Your task to perform on an android device: Search for macbook on bestbuy.com, select the first entry, add it to the cart, then select checkout. Image 0: 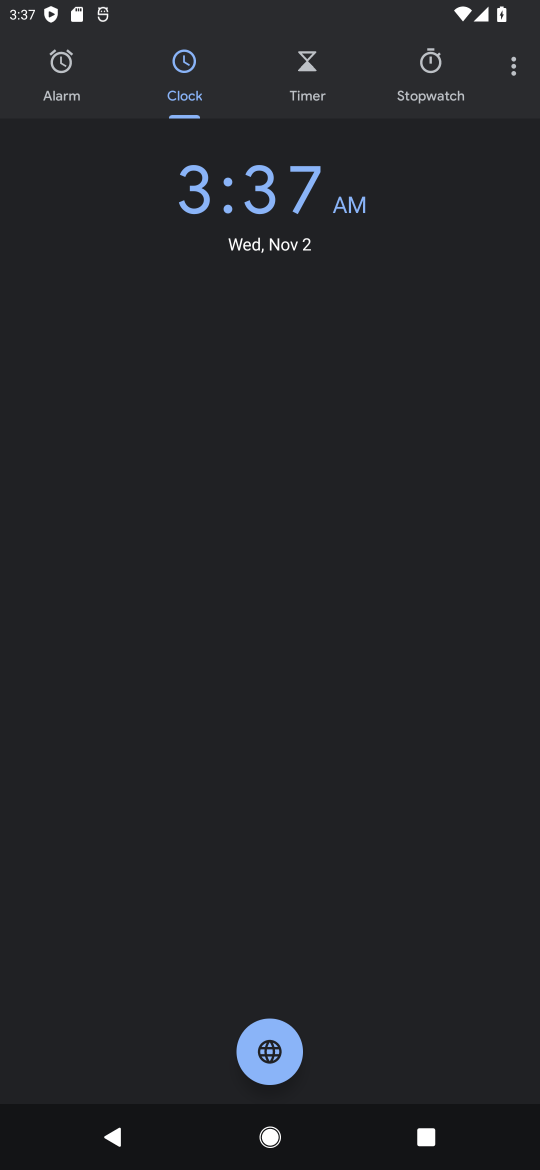
Step 0: press home button
Your task to perform on an android device: Search for macbook on bestbuy.com, select the first entry, add it to the cart, then select checkout. Image 1: 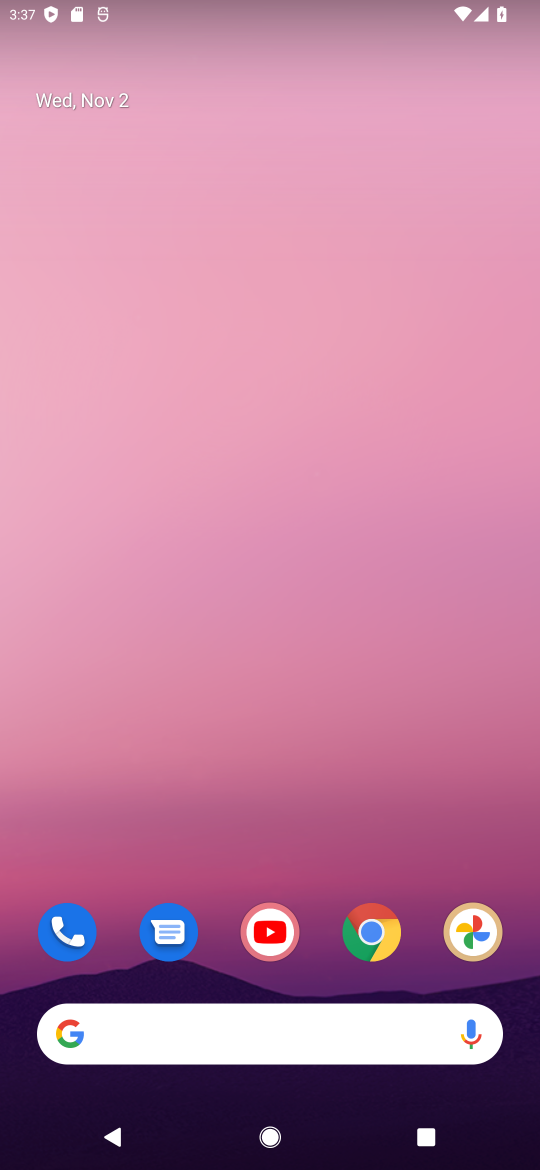
Step 1: click (359, 942)
Your task to perform on an android device: Search for macbook on bestbuy.com, select the first entry, add it to the cart, then select checkout. Image 2: 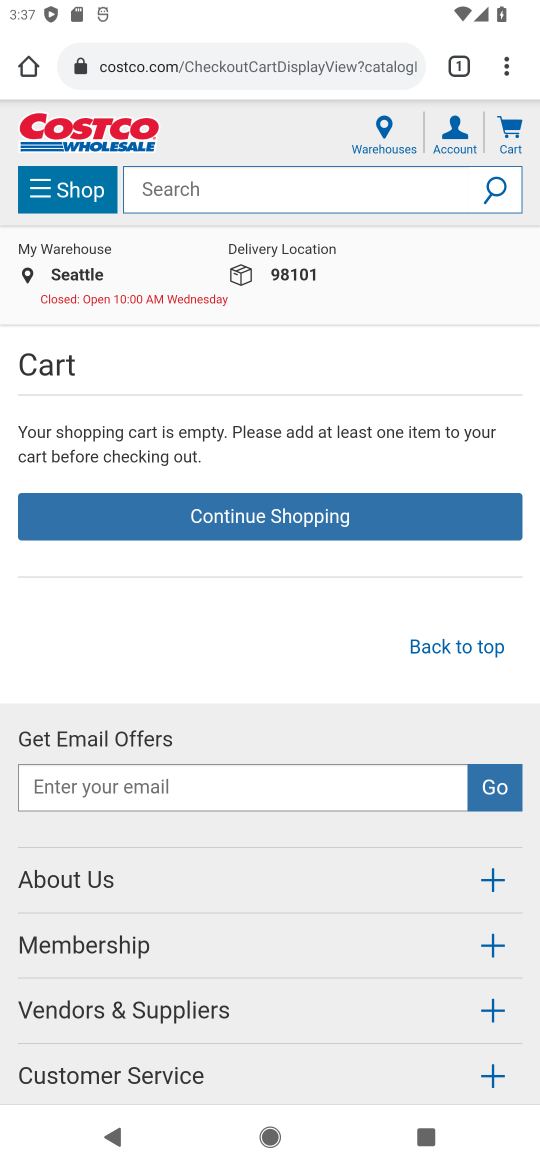
Step 2: click (176, 62)
Your task to perform on an android device: Search for macbook on bestbuy.com, select the first entry, add it to the cart, then select checkout. Image 3: 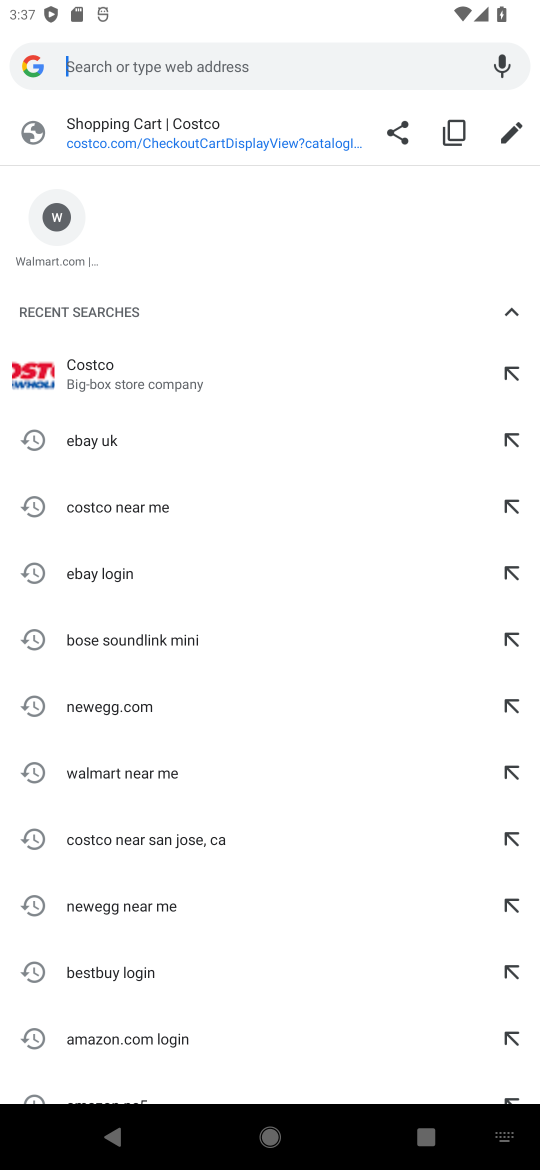
Step 3: click (131, 971)
Your task to perform on an android device: Search for macbook on bestbuy.com, select the first entry, add it to the cart, then select checkout. Image 4: 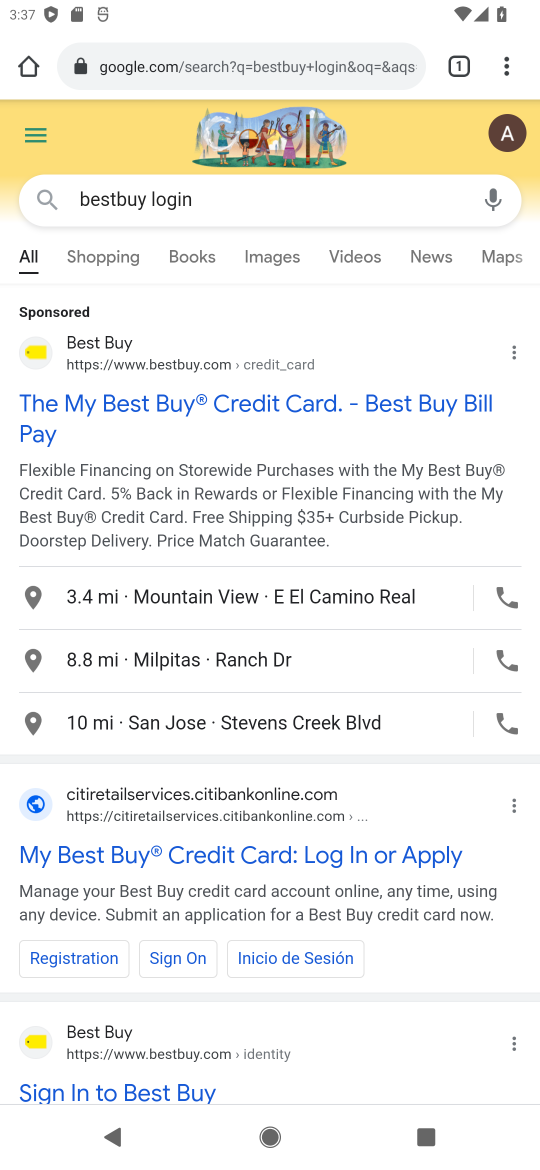
Step 4: click (125, 1041)
Your task to perform on an android device: Search for macbook on bestbuy.com, select the first entry, add it to the cart, then select checkout. Image 5: 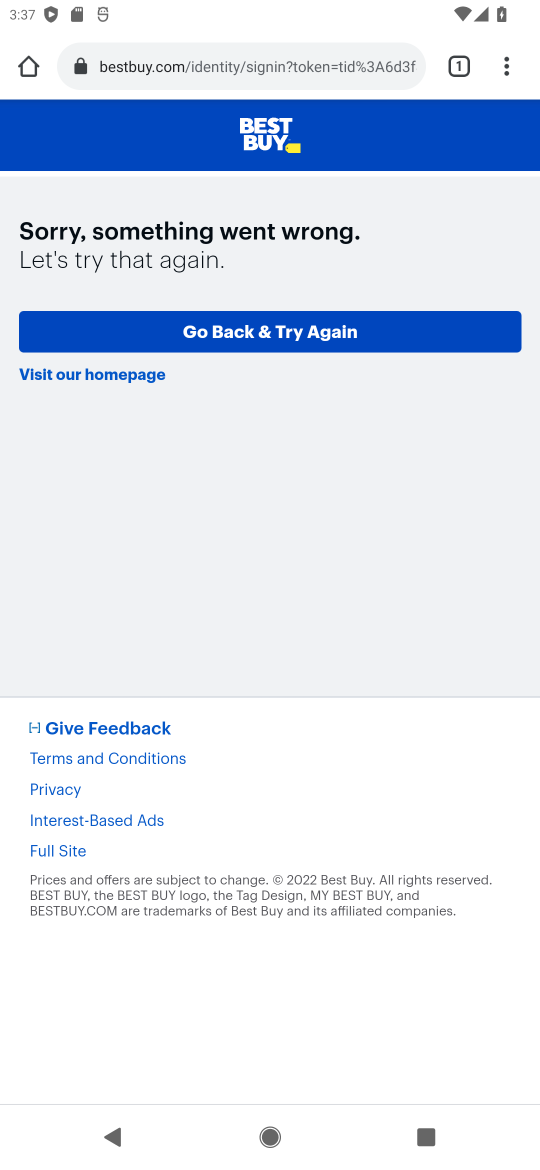
Step 5: press back button
Your task to perform on an android device: Search for macbook on bestbuy.com, select the first entry, add it to the cart, then select checkout. Image 6: 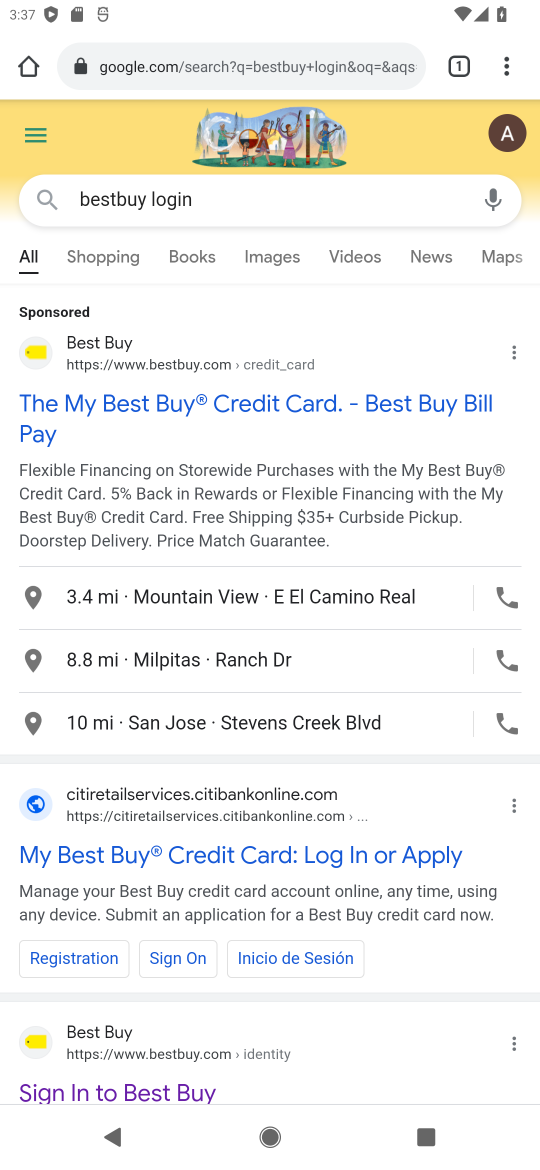
Step 6: click (82, 347)
Your task to perform on an android device: Search for macbook on bestbuy.com, select the first entry, add it to the cart, then select checkout. Image 7: 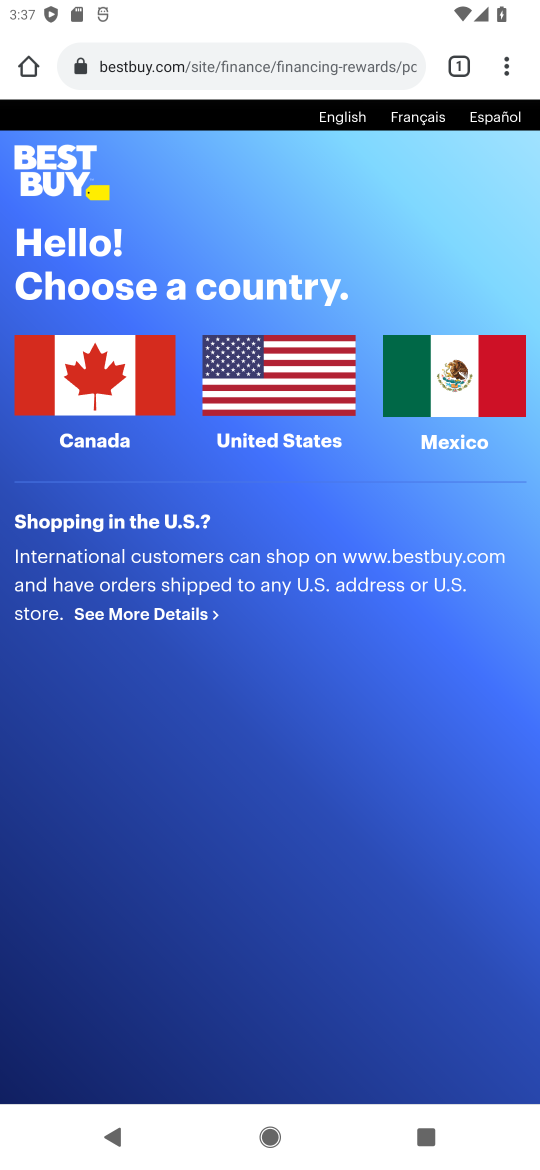
Step 7: click (278, 393)
Your task to perform on an android device: Search for macbook on bestbuy.com, select the first entry, add it to the cart, then select checkout. Image 8: 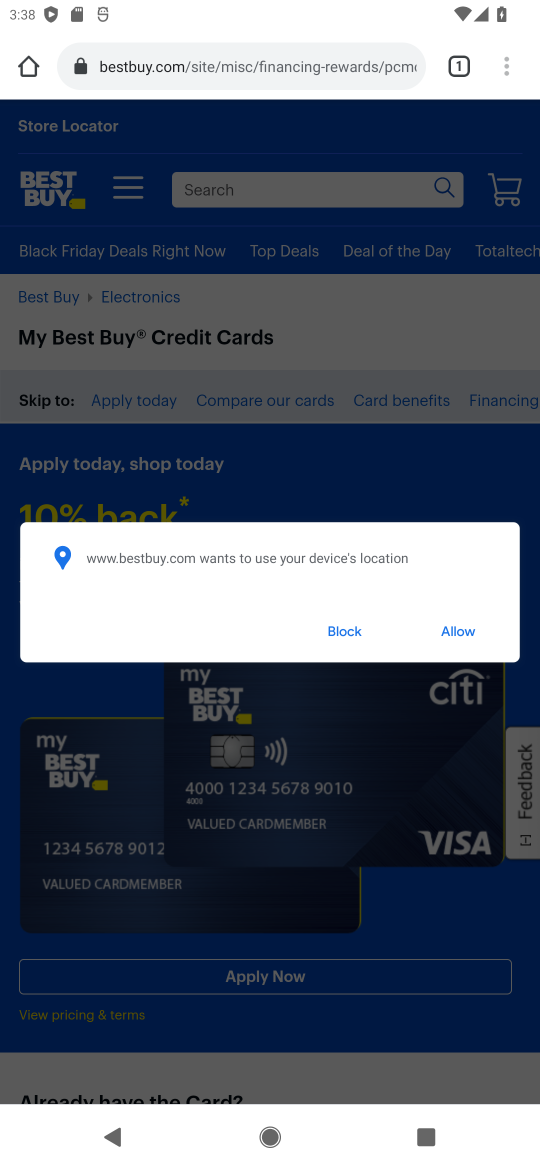
Step 8: click (339, 625)
Your task to perform on an android device: Search for macbook on bestbuy.com, select the first entry, add it to the cart, then select checkout. Image 9: 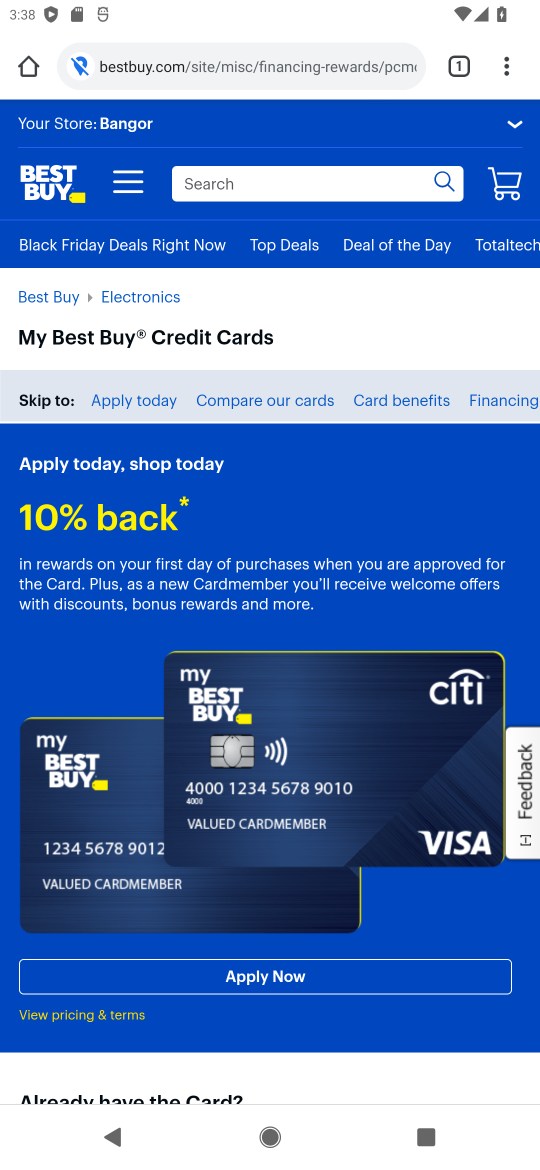
Step 9: click (306, 187)
Your task to perform on an android device: Search for macbook on bestbuy.com, select the first entry, add it to the cart, then select checkout. Image 10: 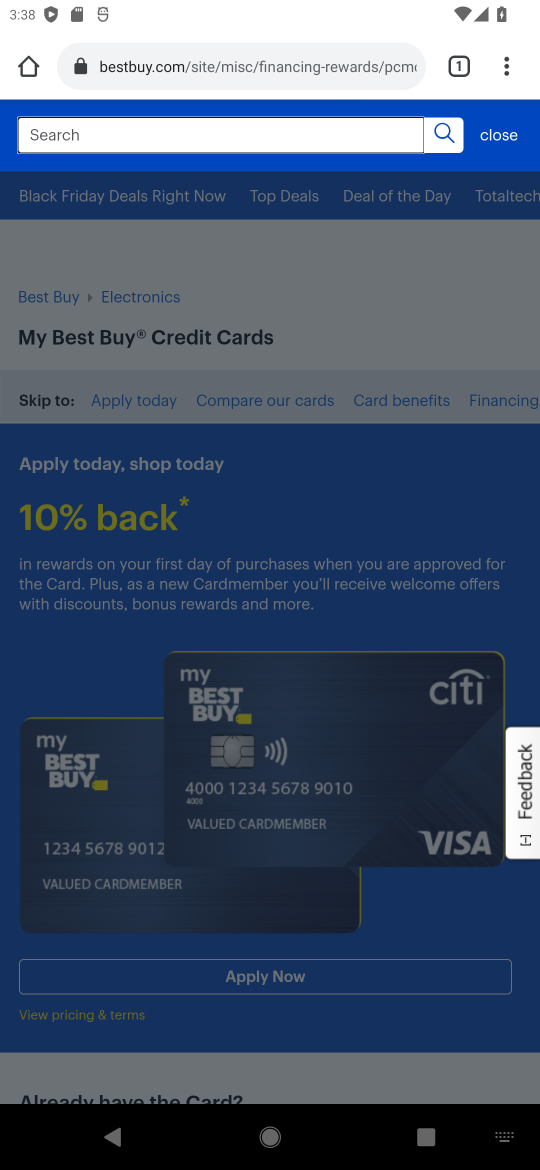
Step 10: type "macbook"
Your task to perform on an android device: Search for macbook on bestbuy.com, select the first entry, add it to the cart, then select checkout. Image 11: 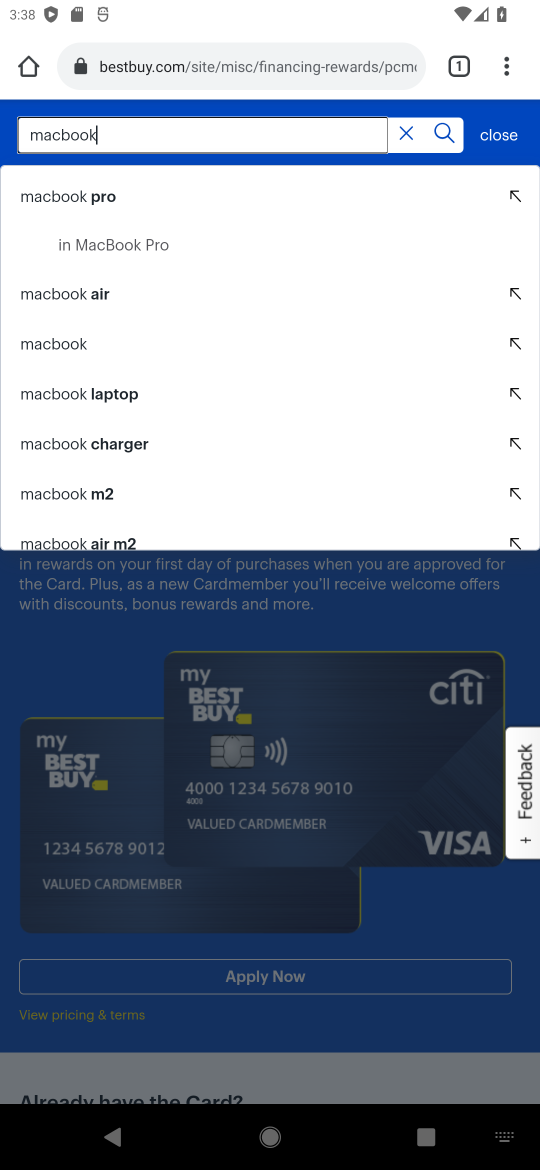
Step 11: click (67, 341)
Your task to perform on an android device: Search for macbook on bestbuy.com, select the first entry, add it to the cart, then select checkout. Image 12: 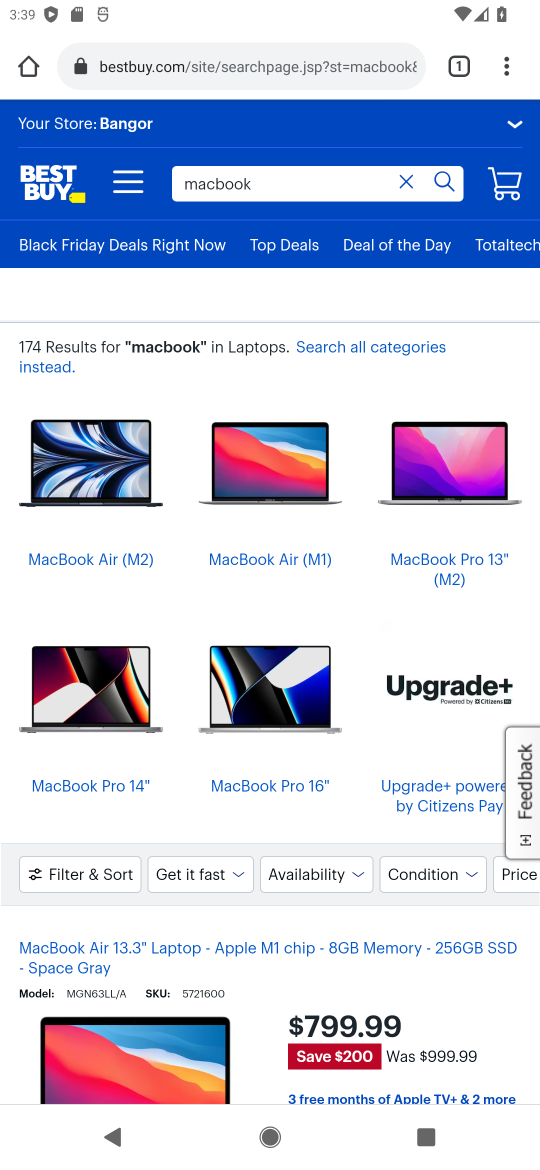
Step 12: click (157, 1047)
Your task to perform on an android device: Search for macbook on bestbuy.com, select the first entry, add it to the cart, then select checkout. Image 13: 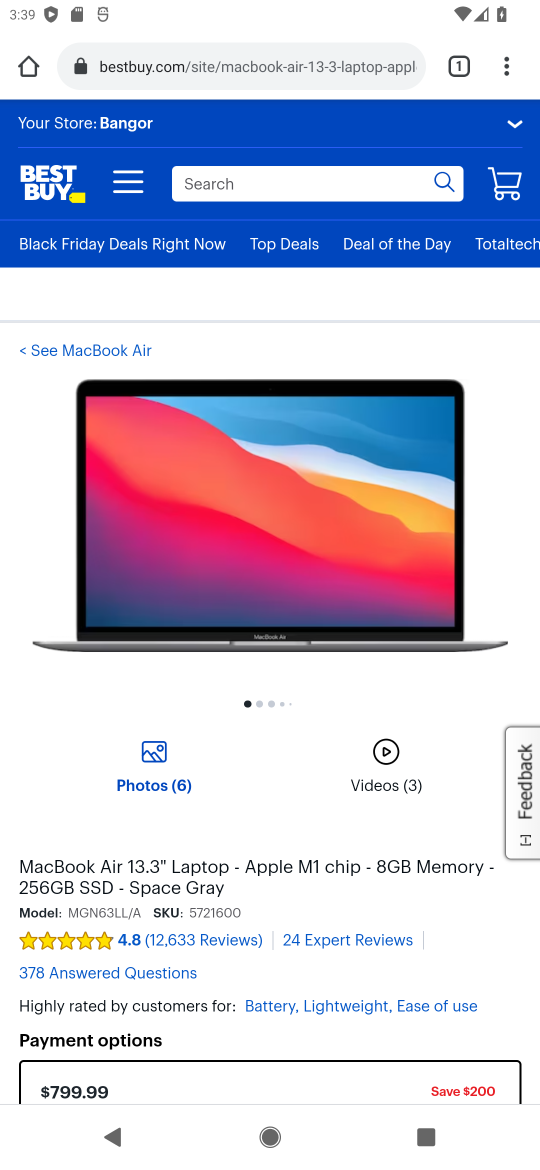
Step 13: drag from (278, 924) to (337, 275)
Your task to perform on an android device: Search for macbook on bestbuy.com, select the first entry, add it to the cart, then select checkout. Image 14: 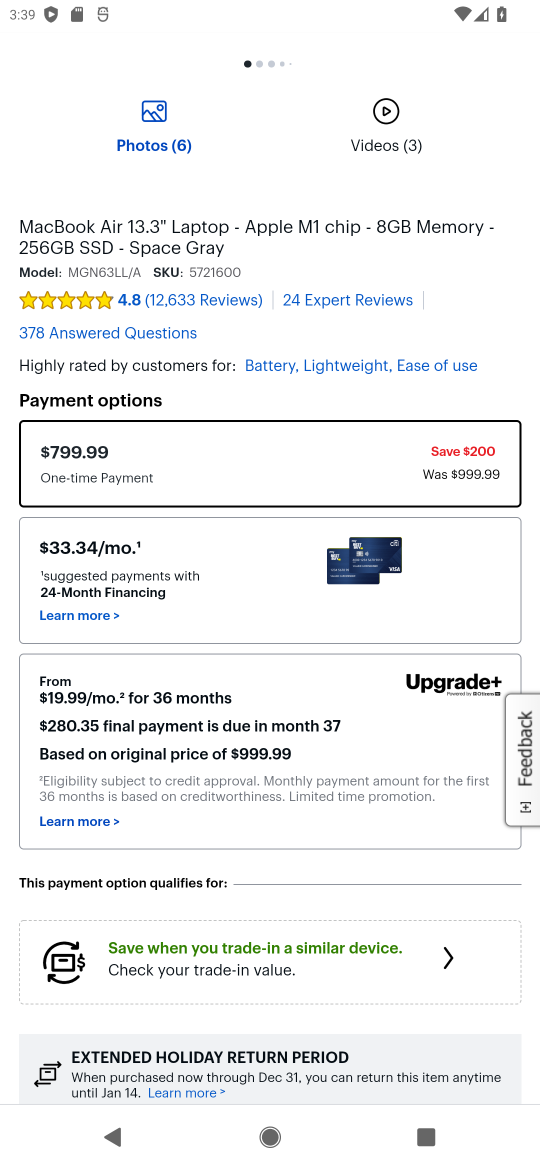
Step 14: drag from (418, 763) to (333, 264)
Your task to perform on an android device: Search for macbook on bestbuy.com, select the first entry, add it to the cart, then select checkout. Image 15: 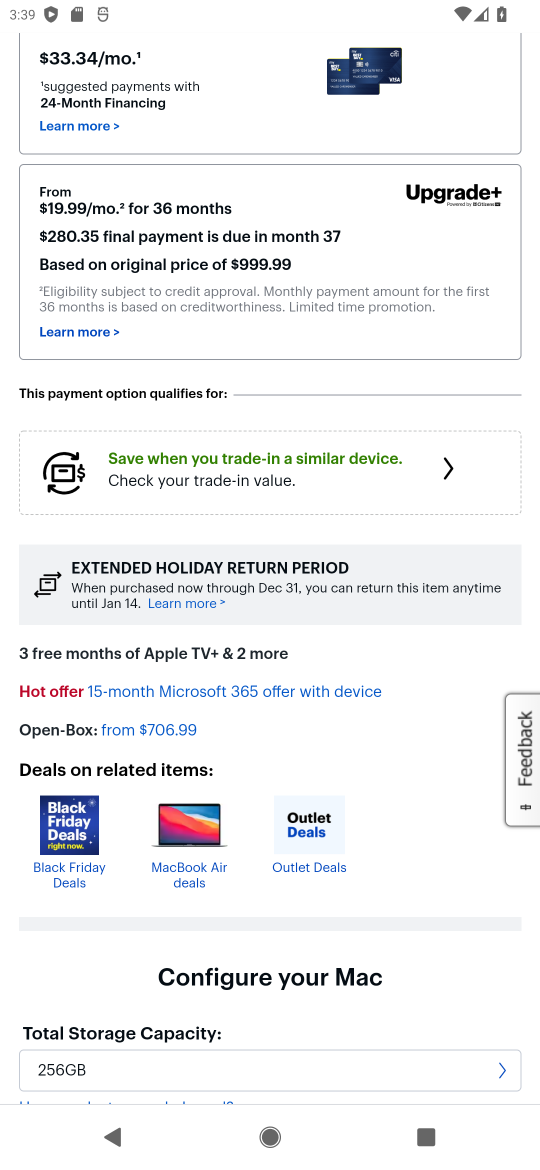
Step 15: drag from (374, 924) to (270, 342)
Your task to perform on an android device: Search for macbook on bestbuy.com, select the first entry, add it to the cart, then select checkout. Image 16: 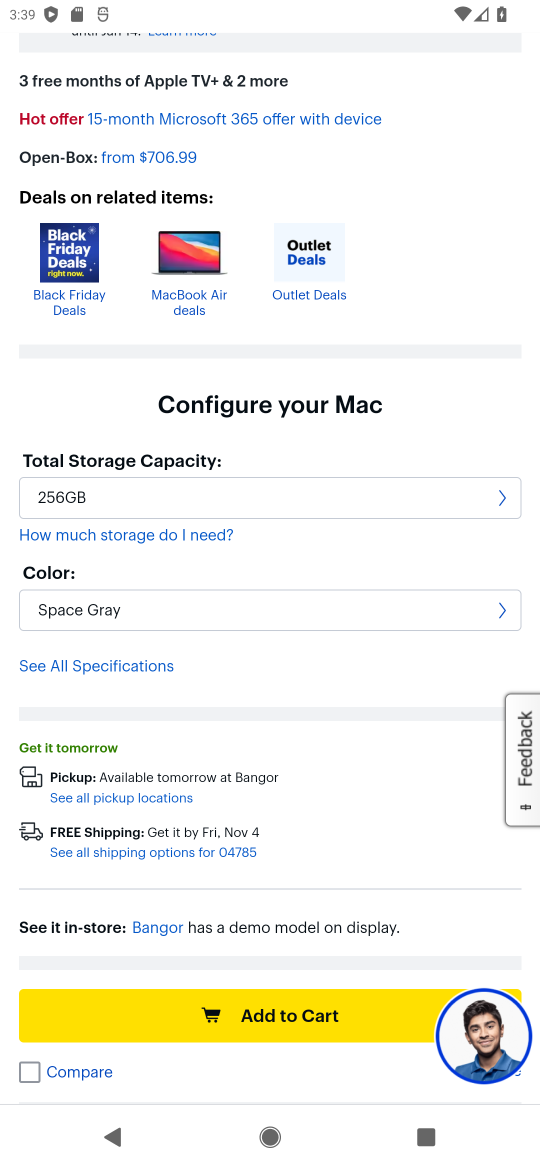
Step 16: click (296, 1014)
Your task to perform on an android device: Search for macbook on bestbuy.com, select the first entry, add it to the cart, then select checkout. Image 17: 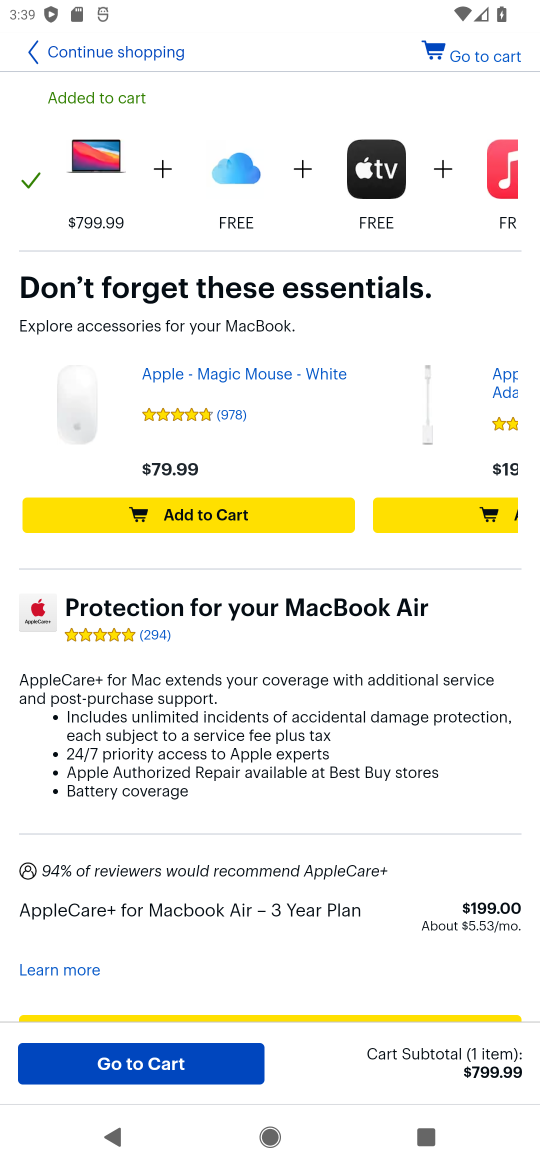
Step 17: click (96, 1073)
Your task to perform on an android device: Search for macbook on bestbuy.com, select the first entry, add it to the cart, then select checkout. Image 18: 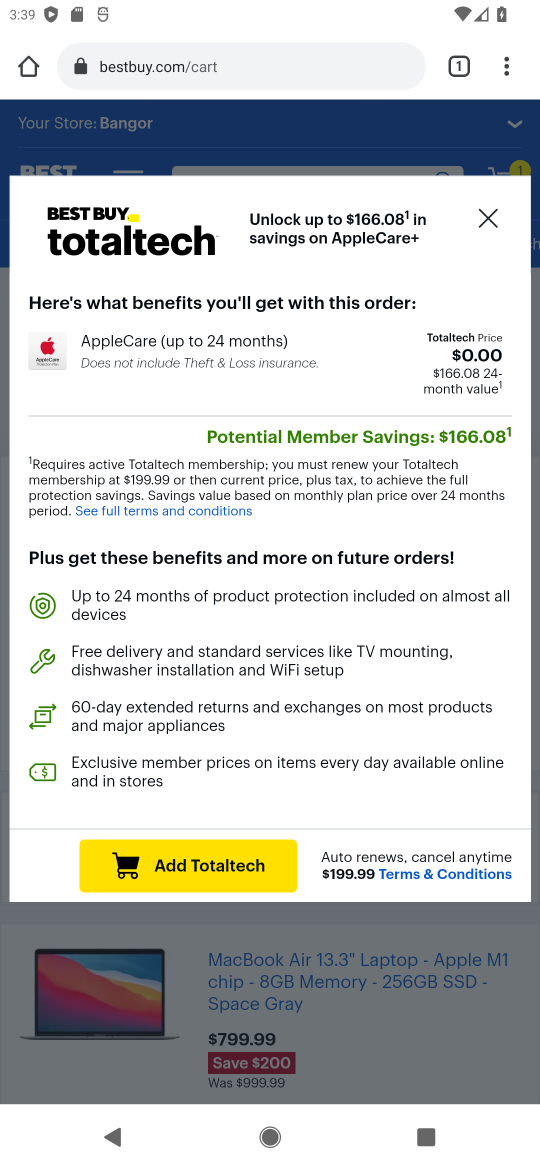
Step 18: click (491, 218)
Your task to perform on an android device: Search for macbook on bestbuy.com, select the first entry, add it to the cart, then select checkout. Image 19: 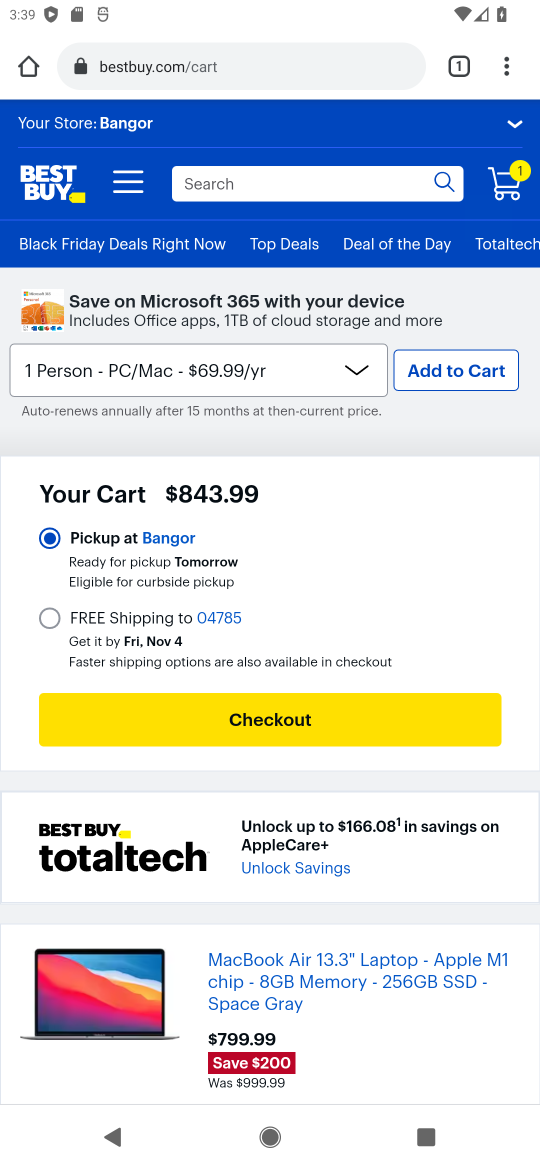
Step 19: click (299, 711)
Your task to perform on an android device: Search for macbook on bestbuy.com, select the first entry, add it to the cart, then select checkout. Image 20: 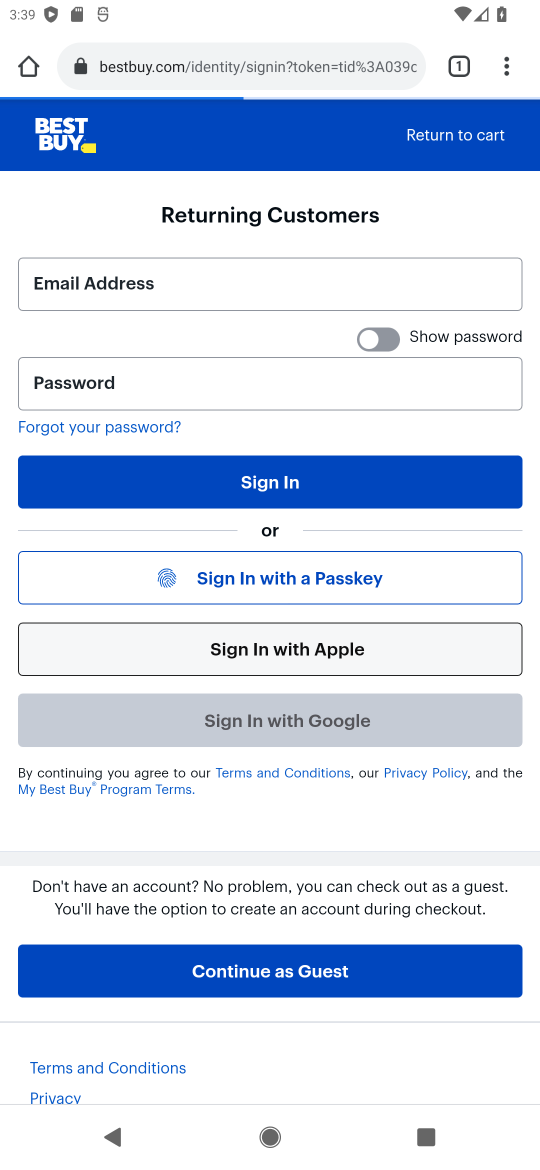
Step 20: task complete